Your task to perform on an android device: When is my next meeting? Image 0: 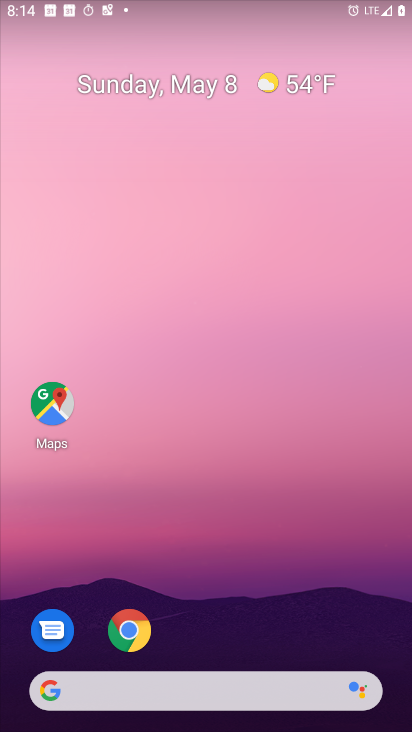
Step 0: drag from (203, 661) to (97, 33)
Your task to perform on an android device: When is my next meeting? Image 1: 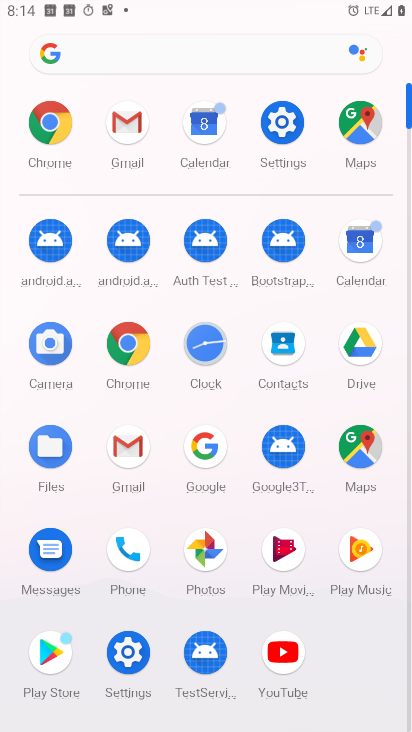
Step 1: click (208, 131)
Your task to perform on an android device: When is my next meeting? Image 2: 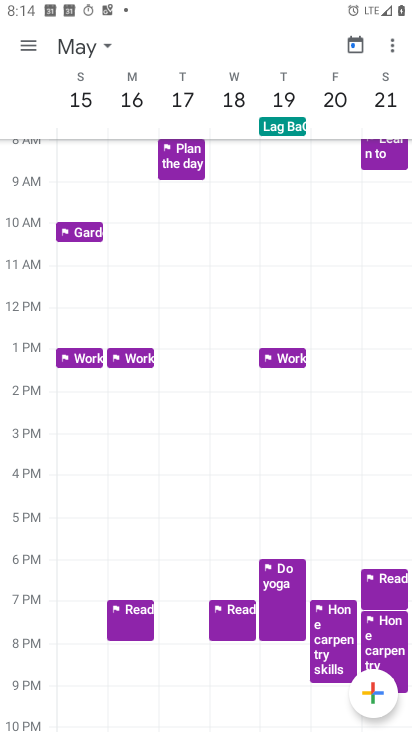
Step 2: click (22, 48)
Your task to perform on an android device: When is my next meeting? Image 3: 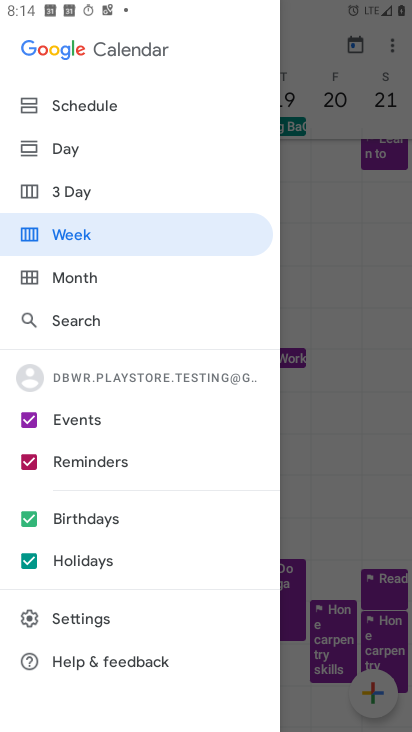
Step 3: click (99, 284)
Your task to perform on an android device: When is my next meeting? Image 4: 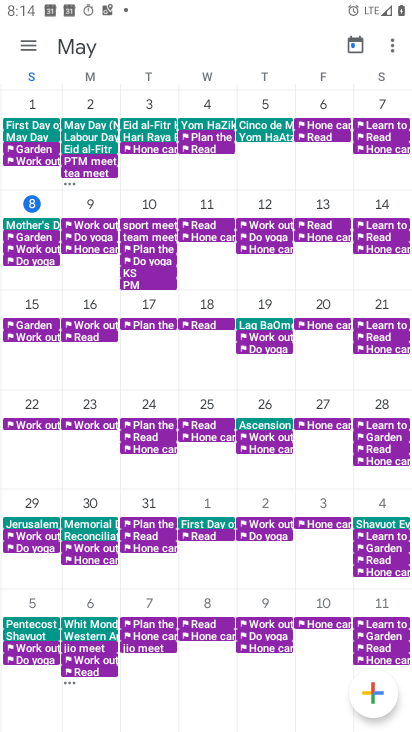
Step 4: task complete